Your task to perform on an android device: see sites visited before in the chrome app Image 0: 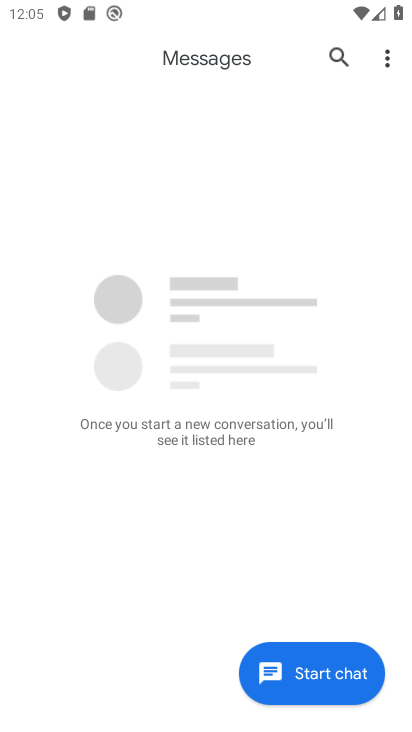
Step 0: press home button
Your task to perform on an android device: see sites visited before in the chrome app Image 1: 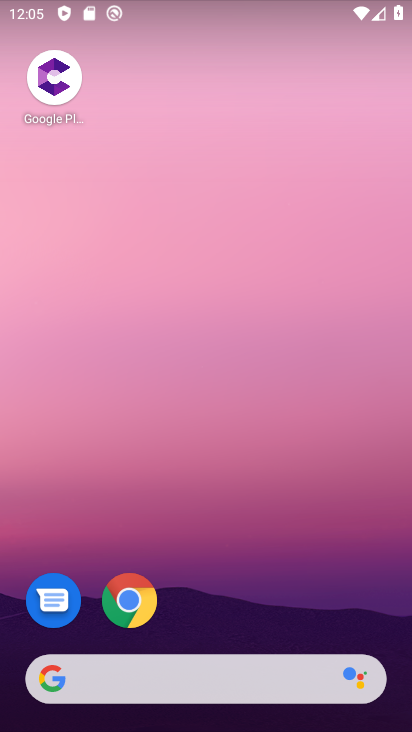
Step 1: drag from (203, 644) to (272, 107)
Your task to perform on an android device: see sites visited before in the chrome app Image 2: 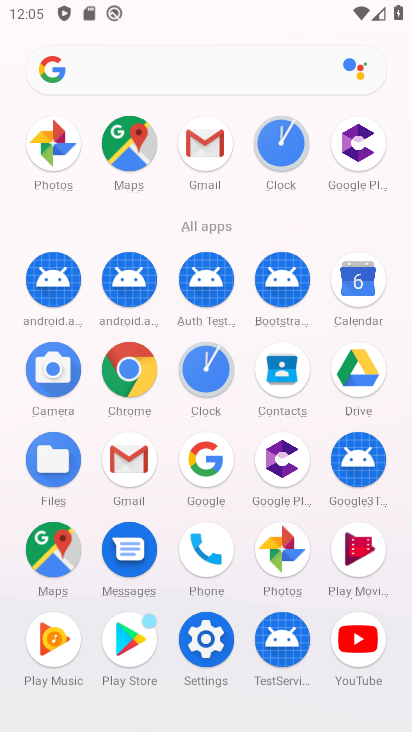
Step 2: click (125, 383)
Your task to perform on an android device: see sites visited before in the chrome app Image 3: 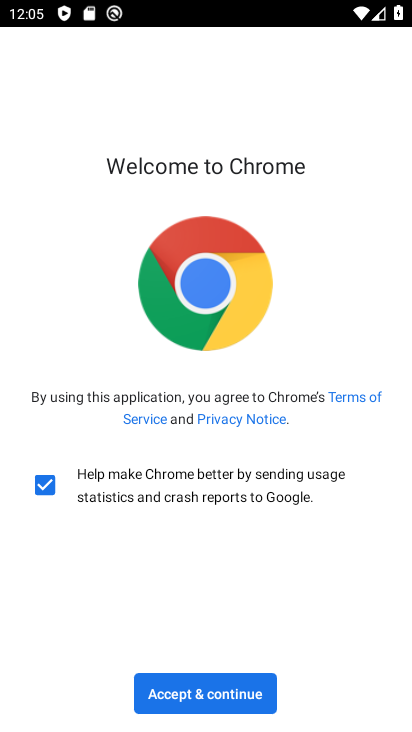
Step 3: click (177, 698)
Your task to perform on an android device: see sites visited before in the chrome app Image 4: 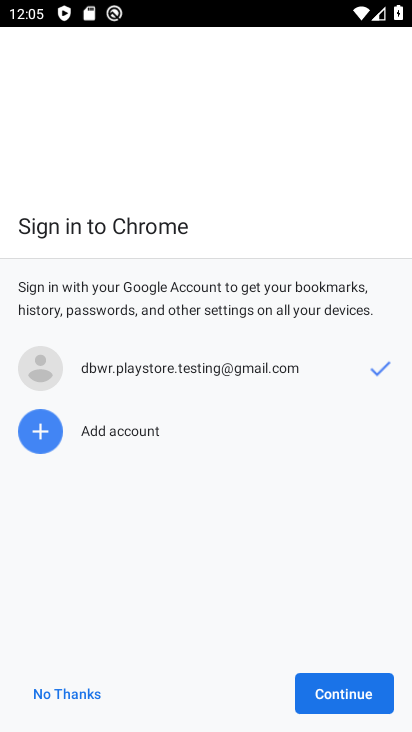
Step 4: click (356, 701)
Your task to perform on an android device: see sites visited before in the chrome app Image 5: 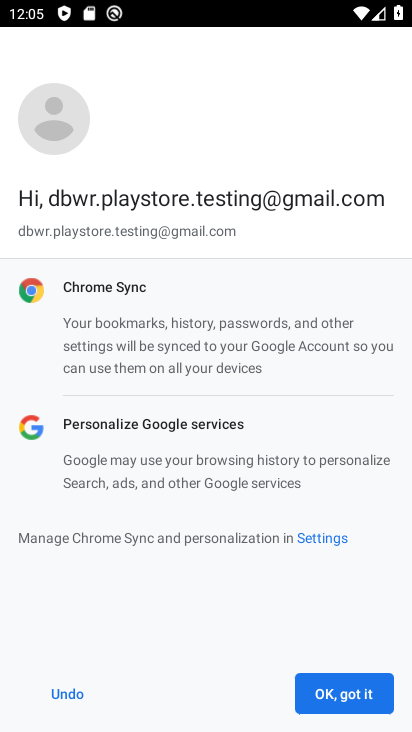
Step 5: click (356, 701)
Your task to perform on an android device: see sites visited before in the chrome app Image 6: 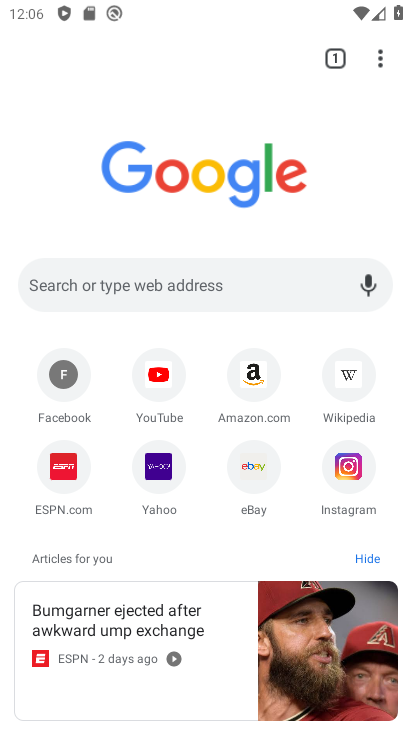
Step 6: click (378, 58)
Your task to perform on an android device: see sites visited before in the chrome app Image 7: 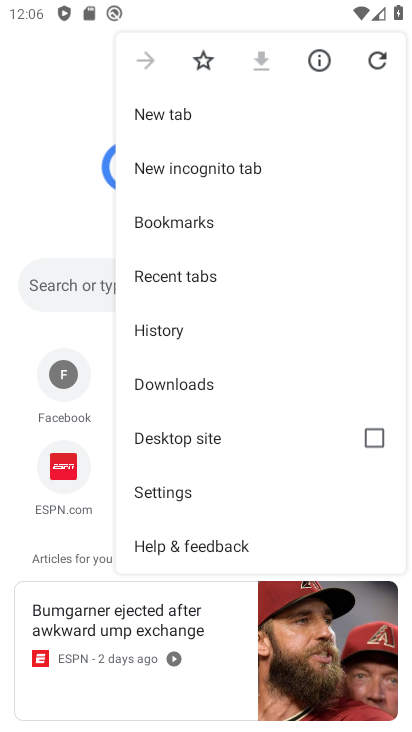
Step 7: click (172, 333)
Your task to perform on an android device: see sites visited before in the chrome app Image 8: 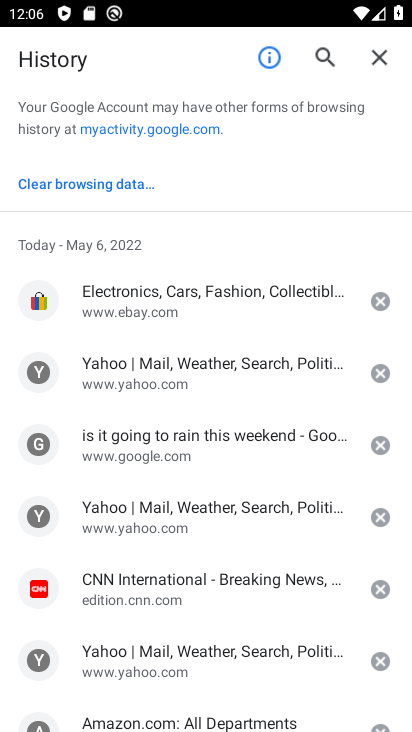
Step 8: task complete